Your task to perform on an android device: Search for Italian restaurants on Maps Image 0: 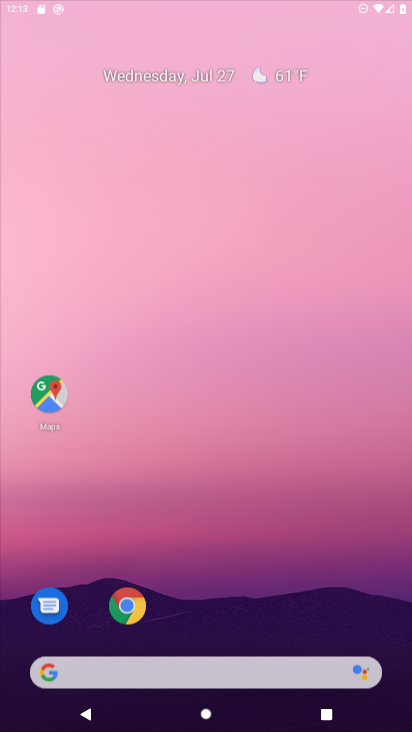
Step 0: press home button
Your task to perform on an android device: Search for Italian restaurants on Maps Image 1: 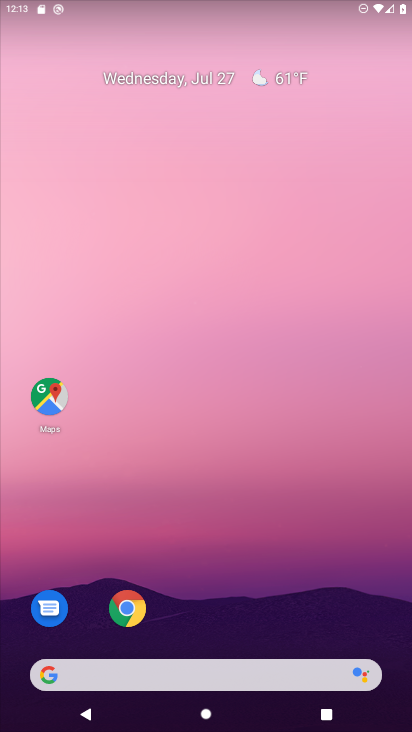
Step 1: drag from (321, 622) to (331, 136)
Your task to perform on an android device: Search for Italian restaurants on Maps Image 2: 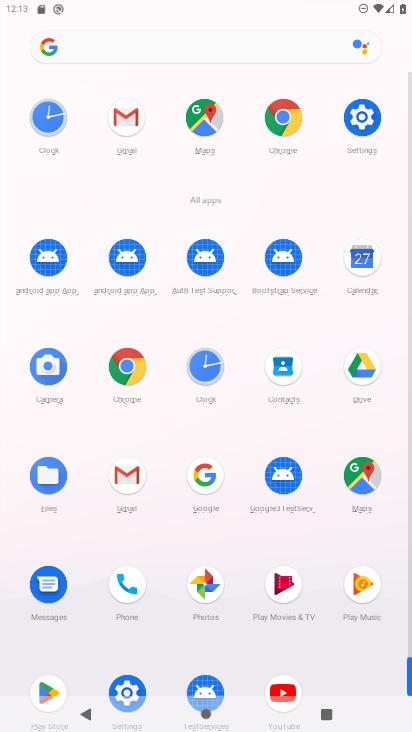
Step 2: click (354, 479)
Your task to perform on an android device: Search for Italian restaurants on Maps Image 3: 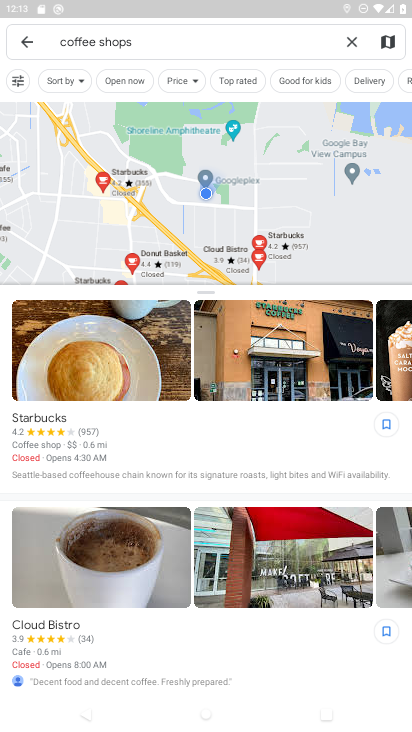
Step 3: press back button
Your task to perform on an android device: Search for Italian restaurants on Maps Image 4: 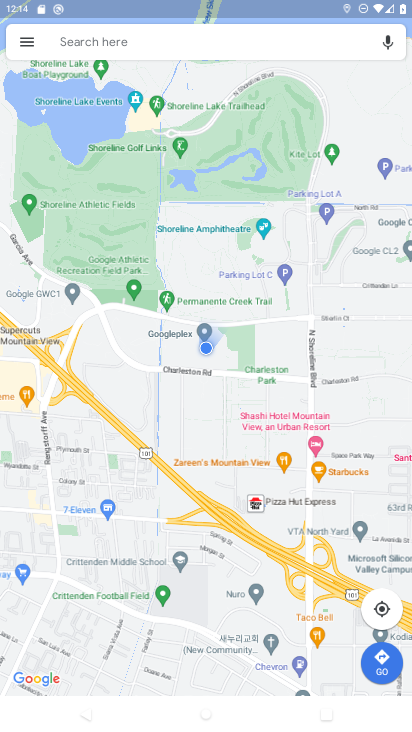
Step 4: click (277, 43)
Your task to perform on an android device: Search for Italian restaurants on Maps Image 5: 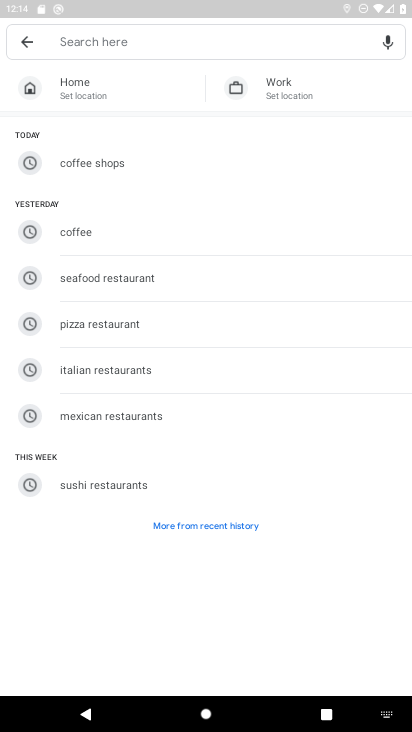
Step 5: type "italian restaurants"
Your task to perform on an android device: Search for Italian restaurants on Maps Image 6: 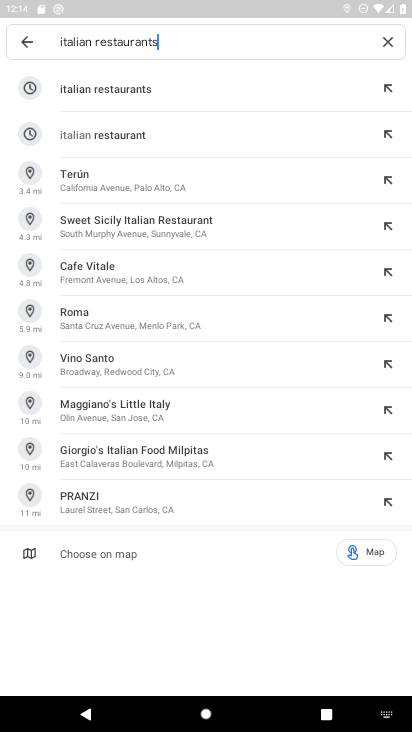
Step 6: click (197, 91)
Your task to perform on an android device: Search for Italian restaurants on Maps Image 7: 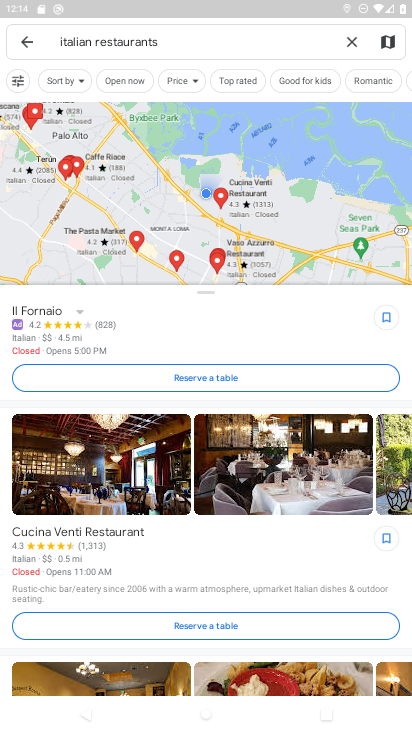
Step 7: task complete